Your task to perform on an android device: turn smart compose on in the gmail app Image 0: 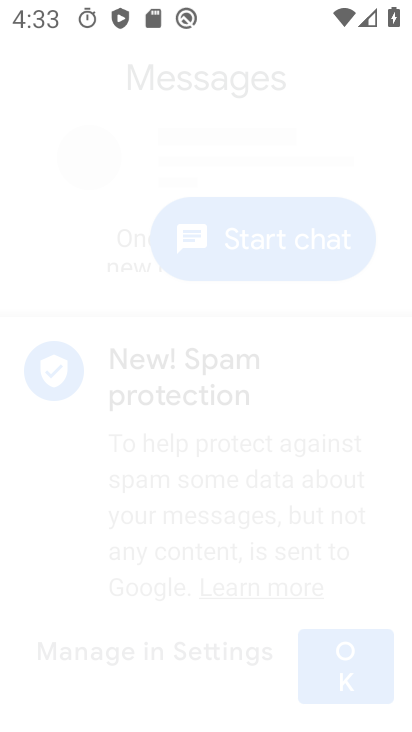
Step 0: drag from (314, 596) to (336, 129)
Your task to perform on an android device: turn smart compose on in the gmail app Image 1: 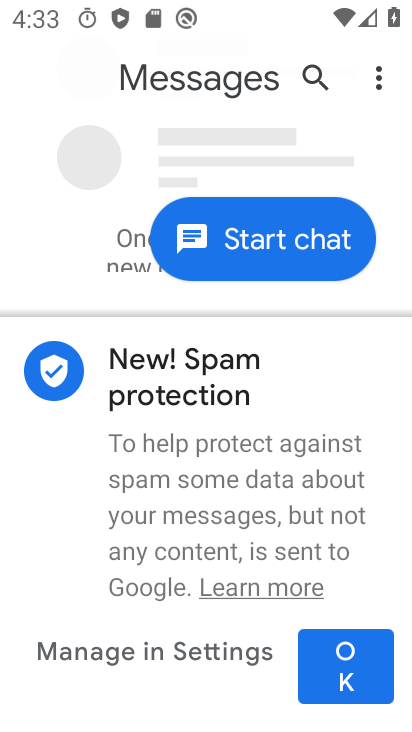
Step 1: press home button
Your task to perform on an android device: turn smart compose on in the gmail app Image 2: 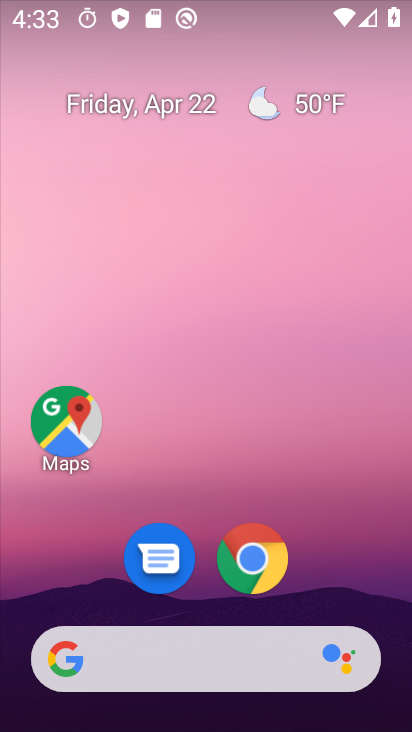
Step 2: drag from (318, 530) to (291, 151)
Your task to perform on an android device: turn smart compose on in the gmail app Image 3: 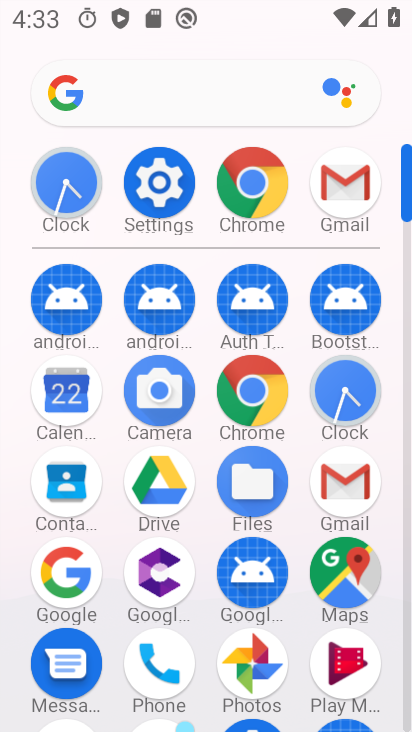
Step 3: click (348, 492)
Your task to perform on an android device: turn smart compose on in the gmail app Image 4: 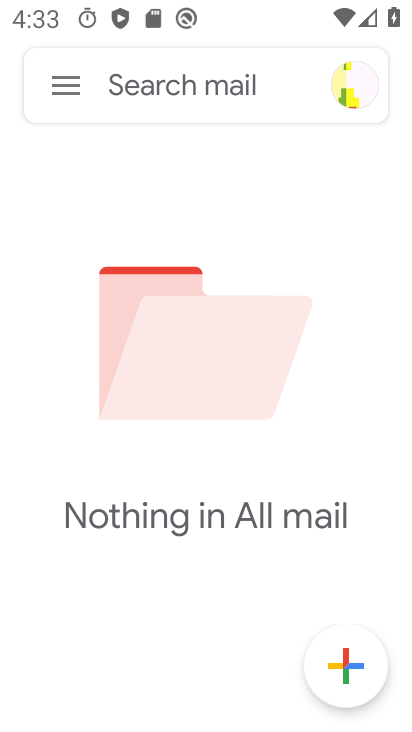
Step 4: click (65, 86)
Your task to perform on an android device: turn smart compose on in the gmail app Image 5: 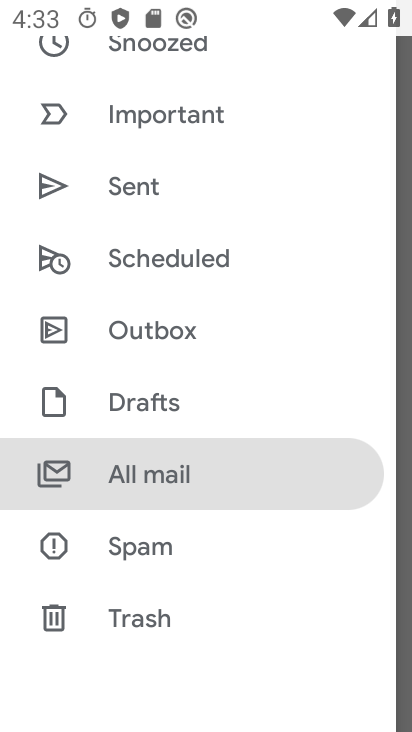
Step 5: drag from (169, 603) to (185, 258)
Your task to perform on an android device: turn smart compose on in the gmail app Image 6: 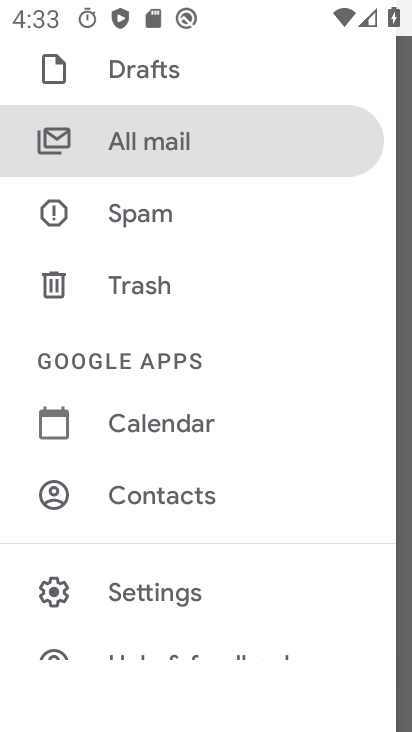
Step 6: click (164, 594)
Your task to perform on an android device: turn smart compose on in the gmail app Image 7: 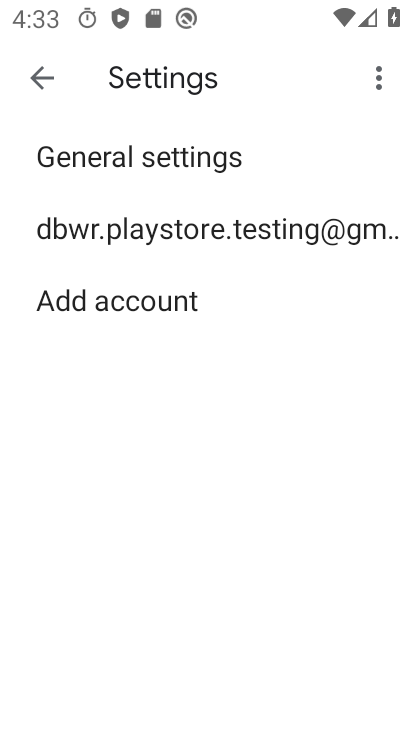
Step 7: click (239, 223)
Your task to perform on an android device: turn smart compose on in the gmail app Image 8: 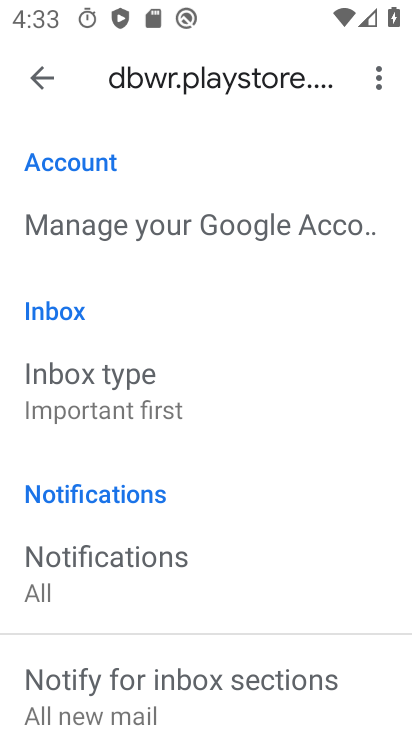
Step 8: task complete